Your task to perform on an android device: Go to Google maps Image 0: 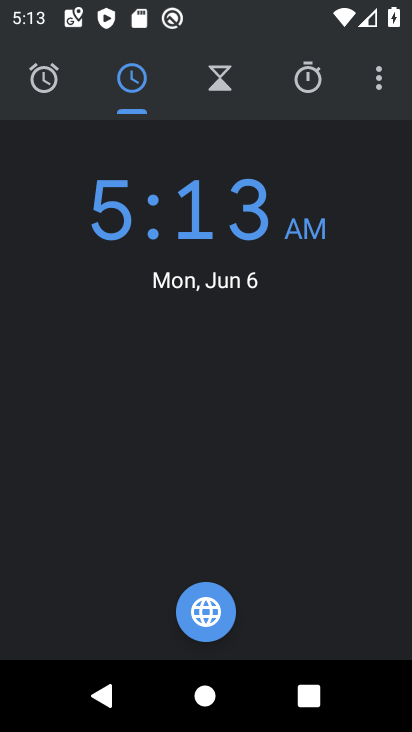
Step 0: press home button
Your task to perform on an android device: Go to Google maps Image 1: 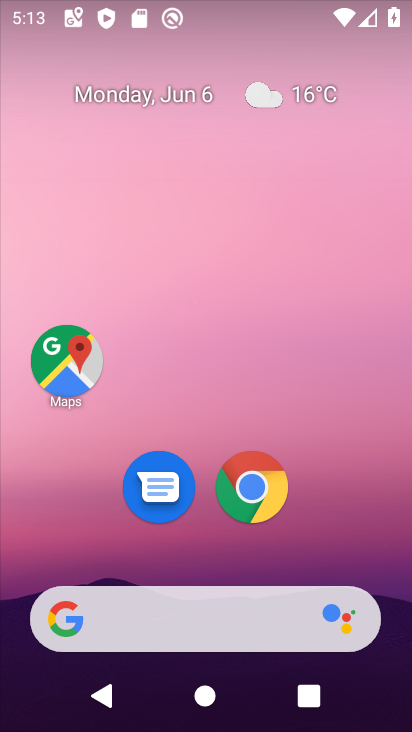
Step 1: click (60, 361)
Your task to perform on an android device: Go to Google maps Image 2: 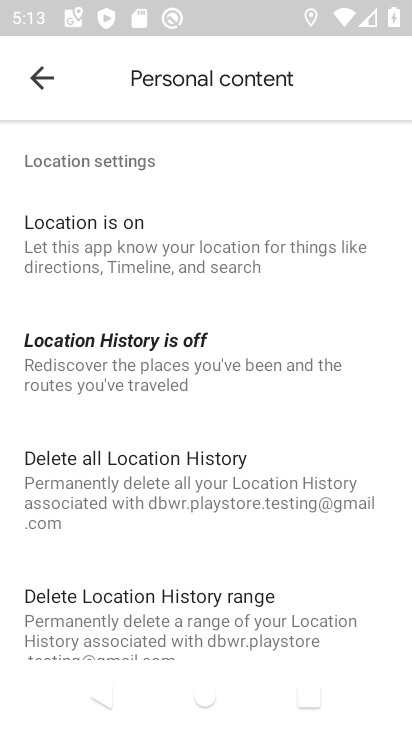
Step 2: click (41, 73)
Your task to perform on an android device: Go to Google maps Image 3: 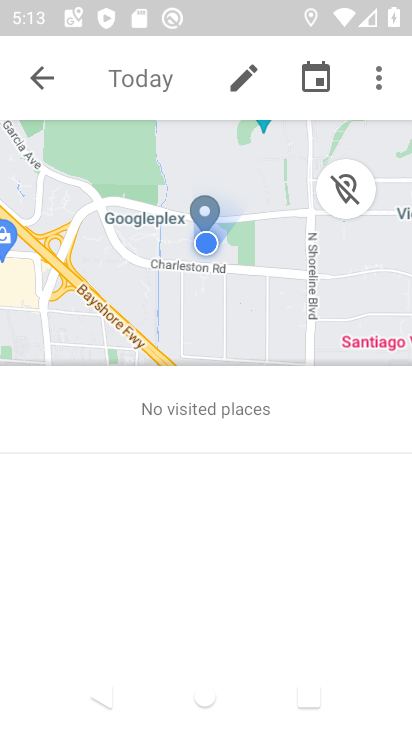
Step 3: click (41, 73)
Your task to perform on an android device: Go to Google maps Image 4: 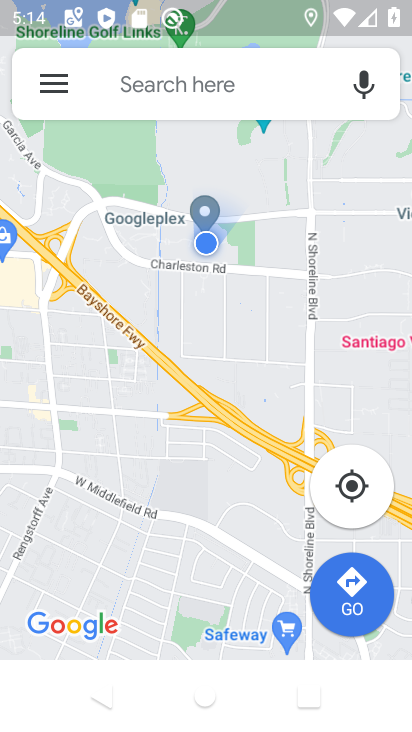
Step 4: task complete